Your task to perform on an android device: Find coffee shops on Maps Image 0: 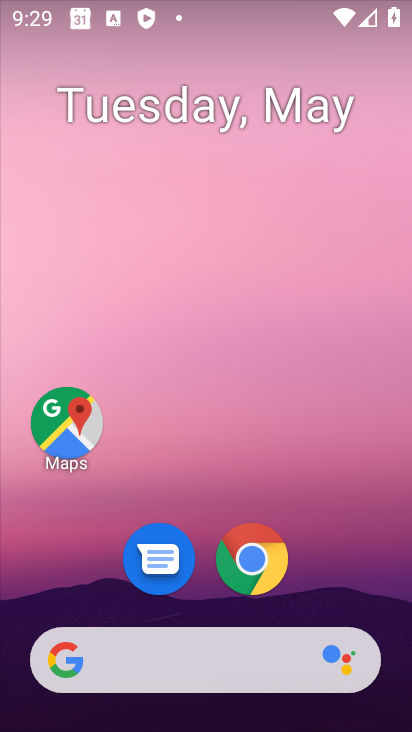
Step 0: drag from (211, 675) to (200, 276)
Your task to perform on an android device: Find coffee shops on Maps Image 1: 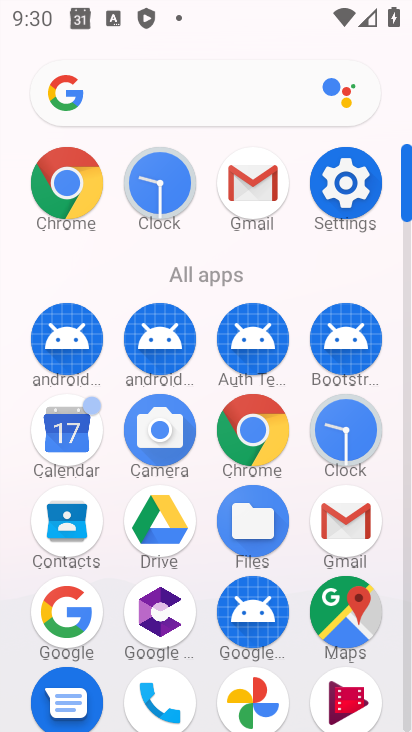
Step 1: click (336, 618)
Your task to perform on an android device: Find coffee shops on Maps Image 2: 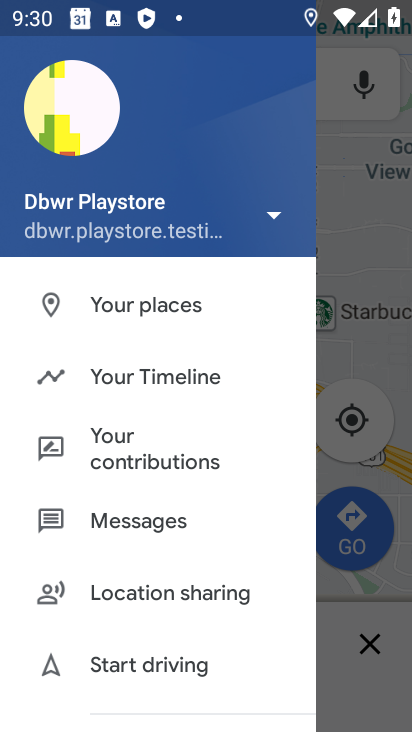
Step 2: click (408, 331)
Your task to perform on an android device: Find coffee shops on Maps Image 3: 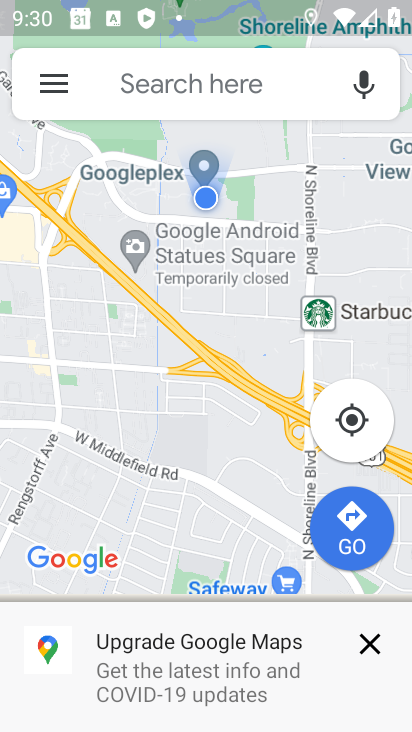
Step 3: click (152, 77)
Your task to perform on an android device: Find coffee shops on Maps Image 4: 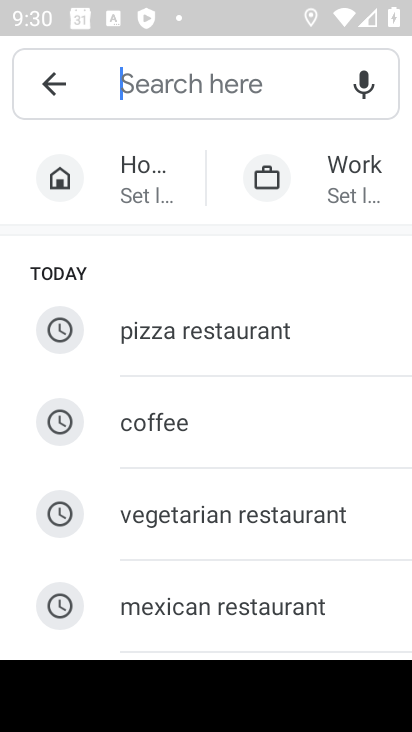
Step 4: type "coffee shops"
Your task to perform on an android device: Find coffee shops on Maps Image 5: 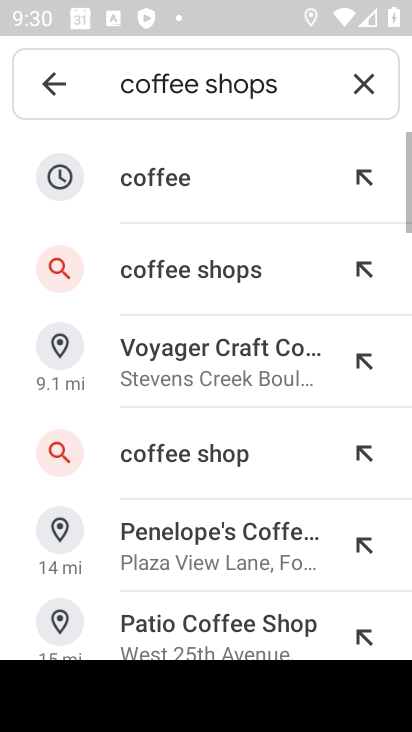
Step 5: click (226, 176)
Your task to perform on an android device: Find coffee shops on Maps Image 6: 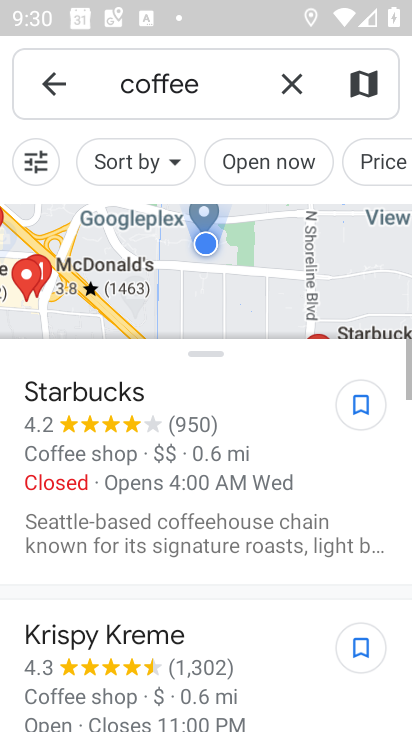
Step 6: task complete